Your task to perform on an android device: Open display settings Image 0: 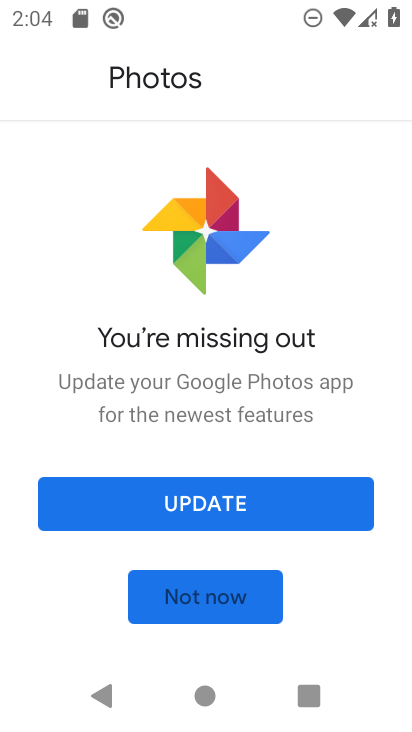
Step 0: press home button
Your task to perform on an android device: Open display settings Image 1: 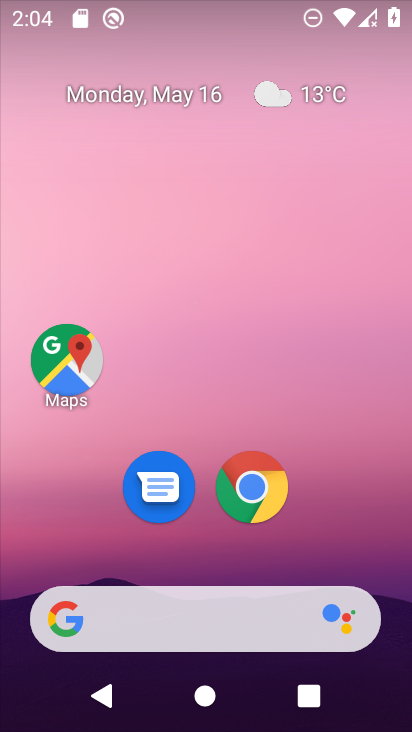
Step 1: drag from (395, 630) to (293, 227)
Your task to perform on an android device: Open display settings Image 2: 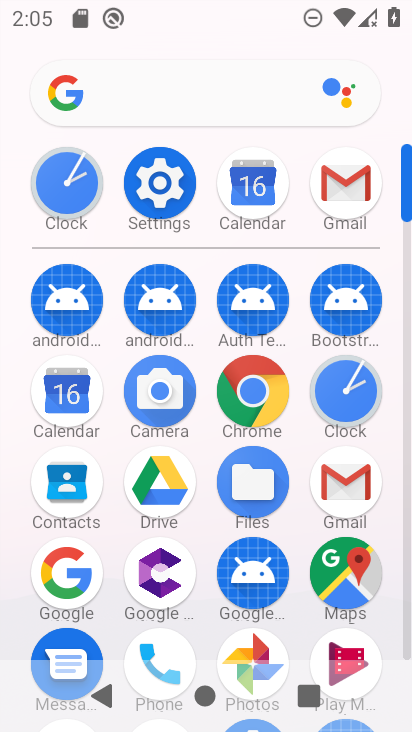
Step 2: click (174, 178)
Your task to perform on an android device: Open display settings Image 3: 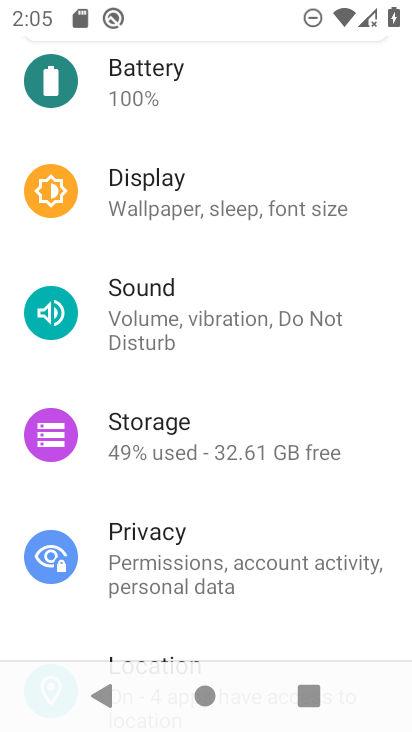
Step 3: click (167, 179)
Your task to perform on an android device: Open display settings Image 4: 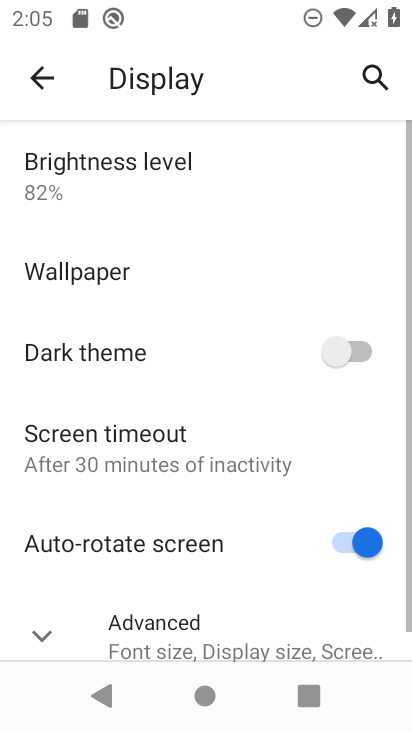
Step 4: task complete